Your task to perform on an android device: Play the last video I watched on Youtube Image 0: 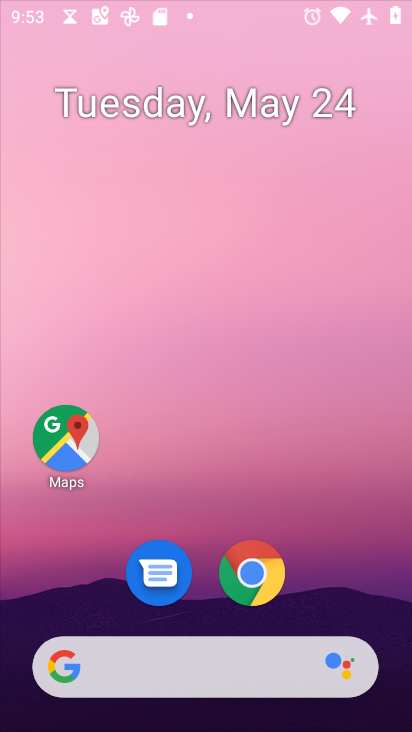
Step 0: drag from (294, 523) to (275, 6)
Your task to perform on an android device: Play the last video I watched on Youtube Image 1: 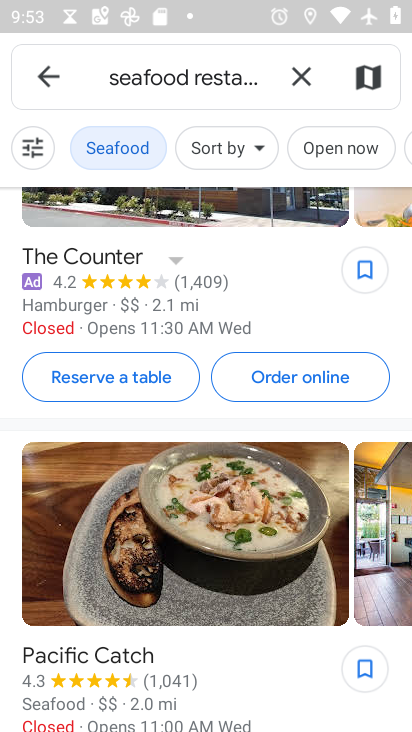
Step 1: press home button
Your task to perform on an android device: Play the last video I watched on Youtube Image 2: 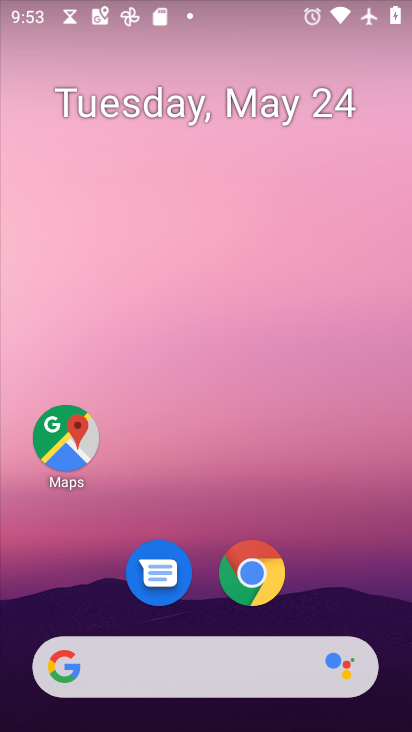
Step 2: drag from (330, 494) to (352, 1)
Your task to perform on an android device: Play the last video I watched on Youtube Image 3: 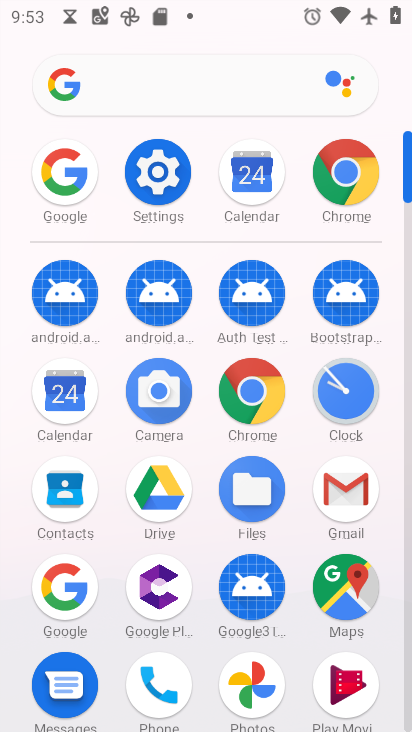
Step 3: drag from (394, 695) to (373, 151)
Your task to perform on an android device: Play the last video I watched on Youtube Image 4: 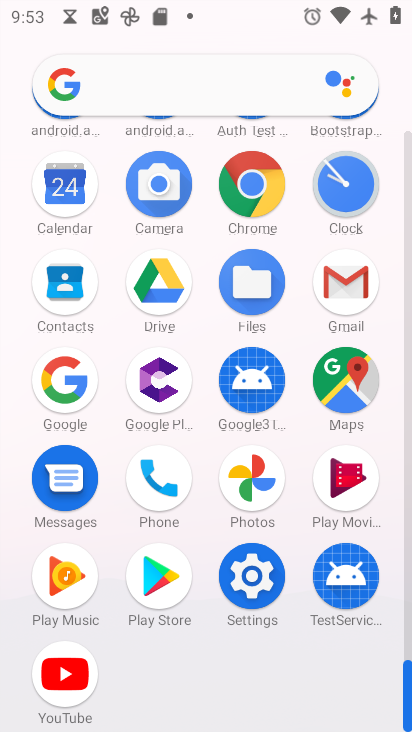
Step 4: click (65, 690)
Your task to perform on an android device: Play the last video I watched on Youtube Image 5: 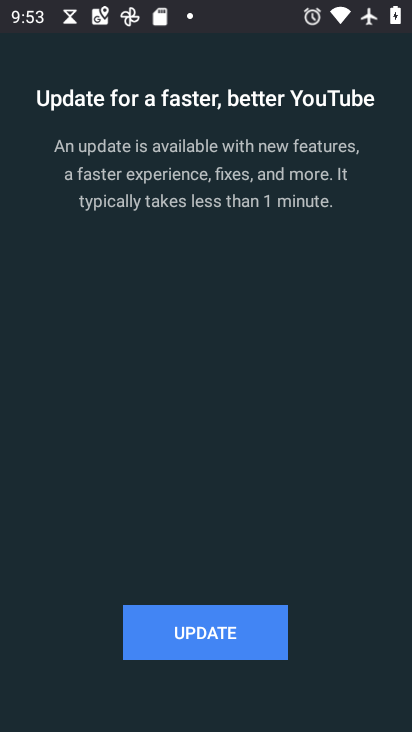
Step 5: click (211, 616)
Your task to perform on an android device: Play the last video I watched on Youtube Image 6: 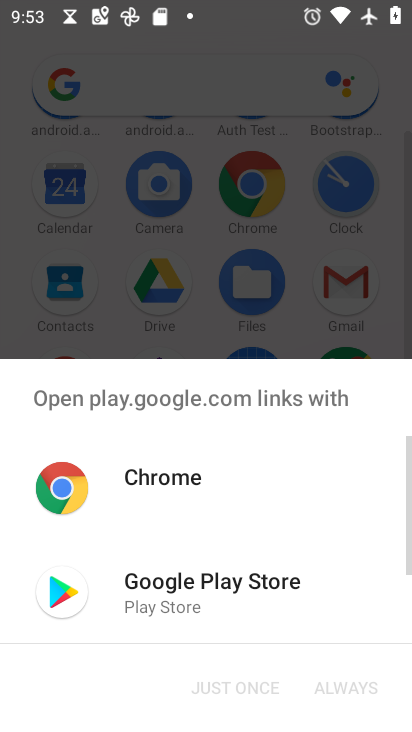
Step 6: click (157, 598)
Your task to perform on an android device: Play the last video I watched on Youtube Image 7: 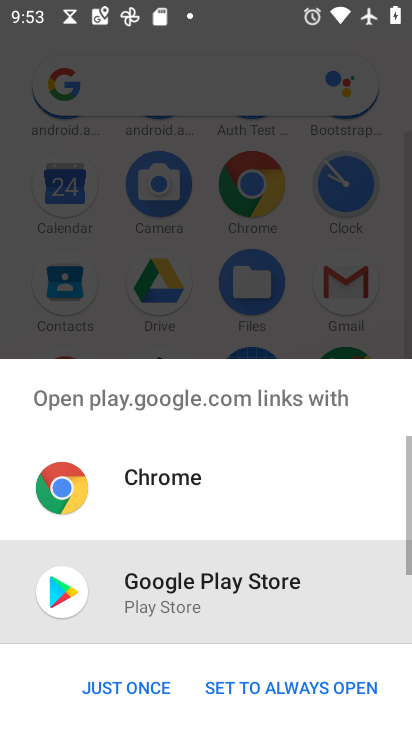
Step 7: click (150, 696)
Your task to perform on an android device: Play the last video I watched on Youtube Image 8: 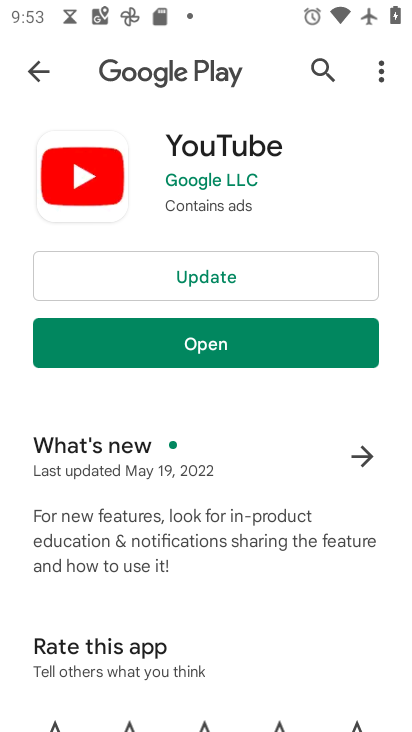
Step 8: click (208, 290)
Your task to perform on an android device: Play the last video I watched on Youtube Image 9: 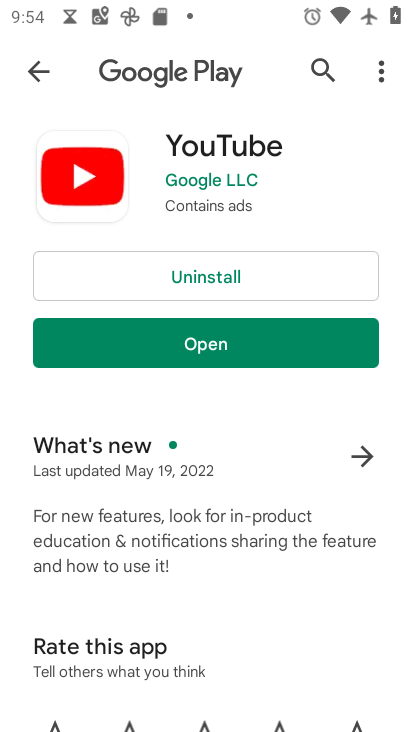
Step 9: click (223, 347)
Your task to perform on an android device: Play the last video I watched on Youtube Image 10: 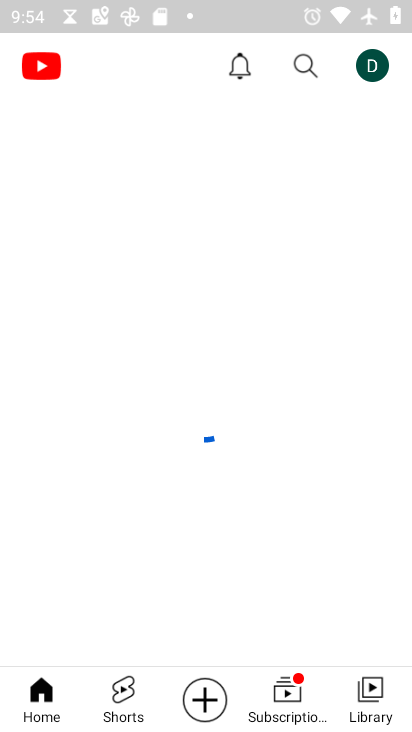
Step 10: click (355, 718)
Your task to perform on an android device: Play the last video I watched on Youtube Image 11: 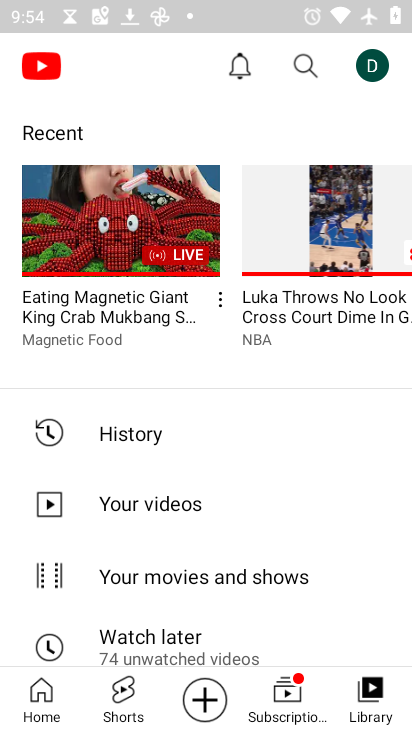
Step 11: click (118, 238)
Your task to perform on an android device: Play the last video I watched on Youtube Image 12: 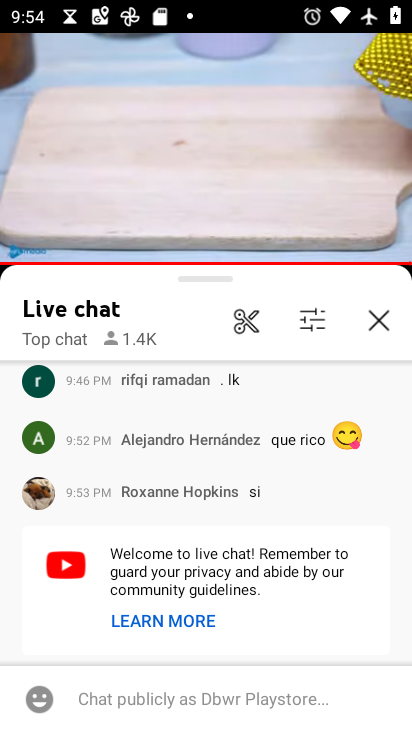
Step 12: task complete